Your task to perform on an android device: move an email to a new category in the gmail app Image 0: 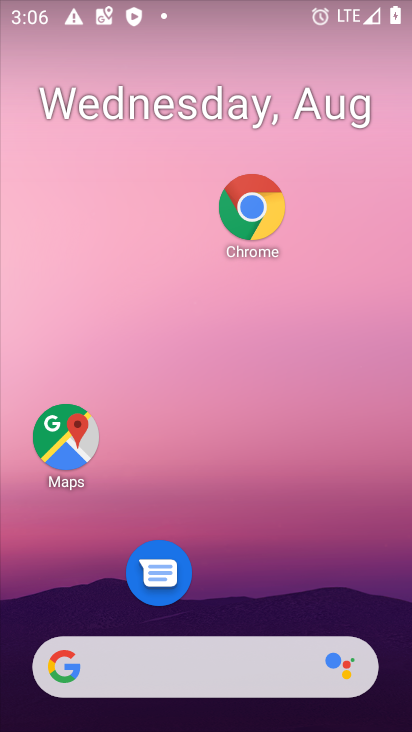
Step 0: drag from (215, 601) to (203, 276)
Your task to perform on an android device: move an email to a new category in the gmail app Image 1: 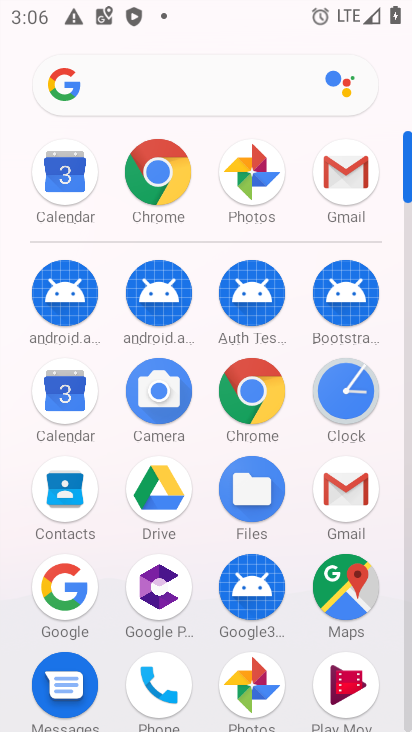
Step 1: click (362, 514)
Your task to perform on an android device: move an email to a new category in the gmail app Image 2: 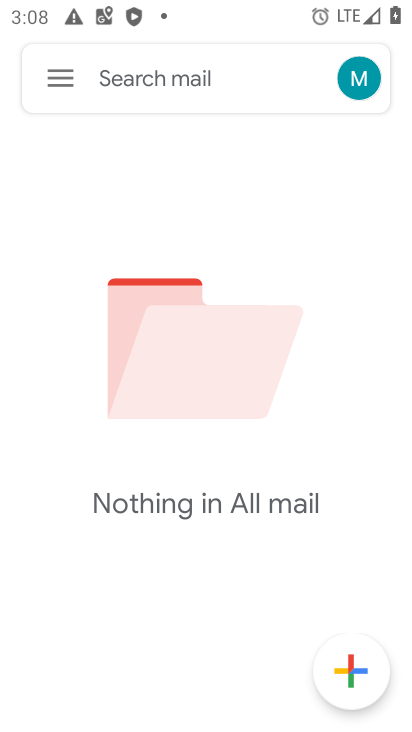
Step 2: task complete